Your task to perform on an android device: Open sound settings Image 0: 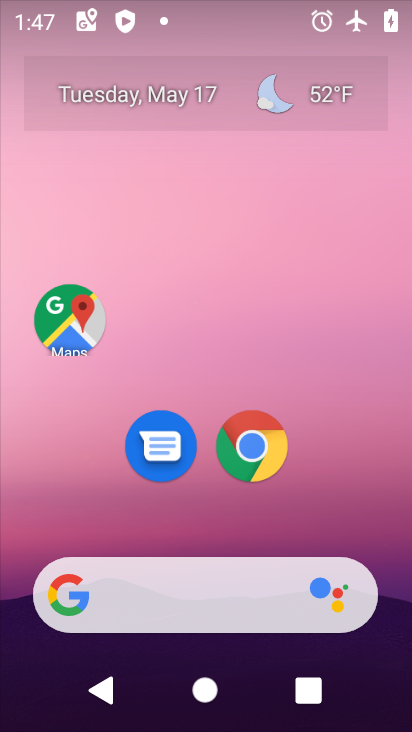
Step 0: drag from (249, 404) to (327, 121)
Your task to perform on an android device: Open sound settings Image 1: 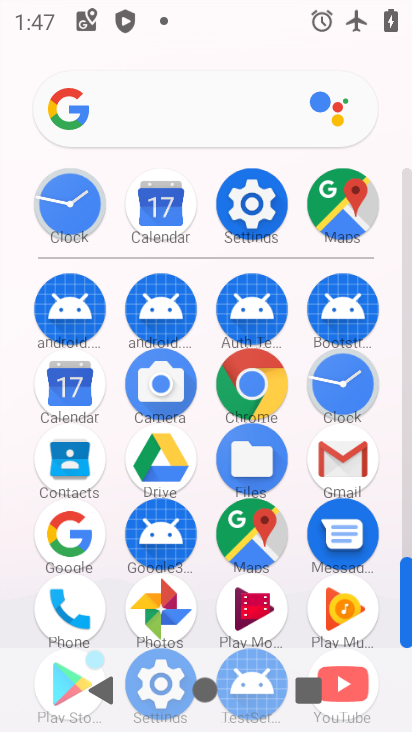
Step 1: click (253, 201)
Your task to perform on an android device: Open sound settings Image 2: 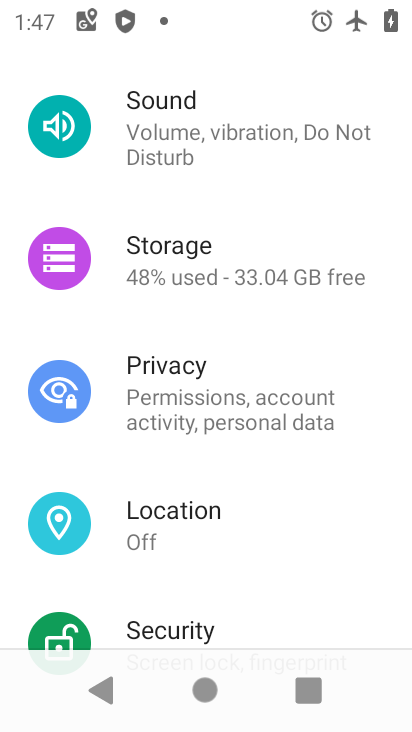
Step 2: click (215, 136)
Your task to perform on an android device: Open sound settings Image 3: 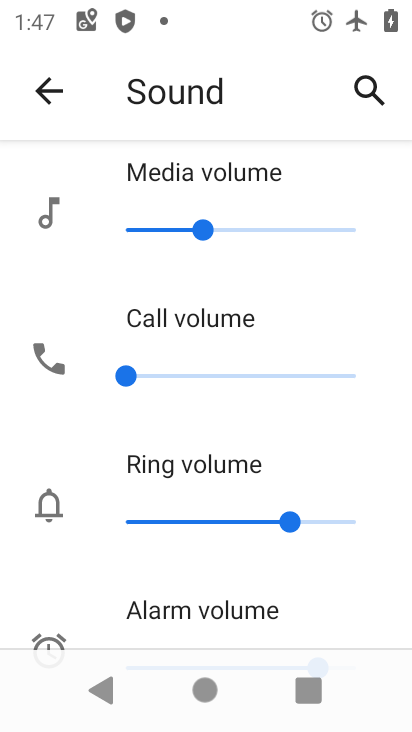
Step 3: task complete